Your task to perform on an android device: toggle wifi Image 0: 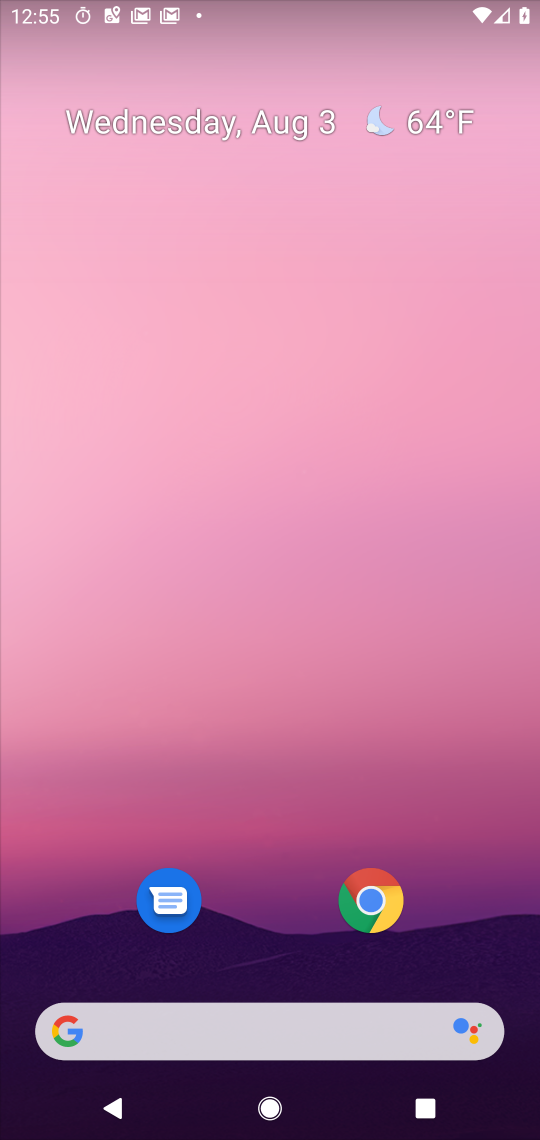
Step 0: drag from (254, 938) to (325, 90)
Your task to perform on an android device: toggle wifi Image 1: 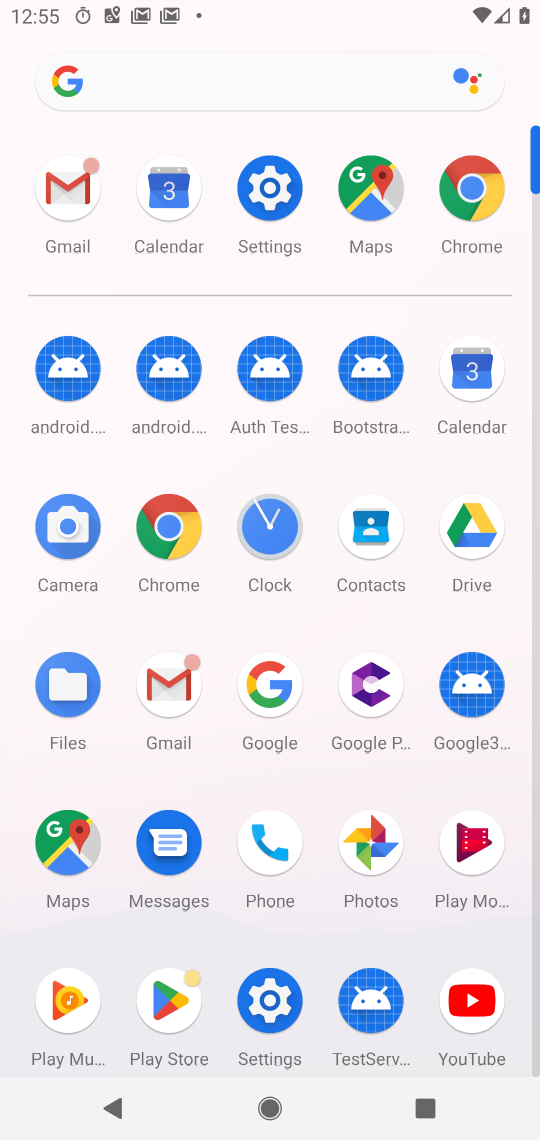
Step 1: click (282, 189)
Your task to perform on an android device: toggle wifi Image 2: 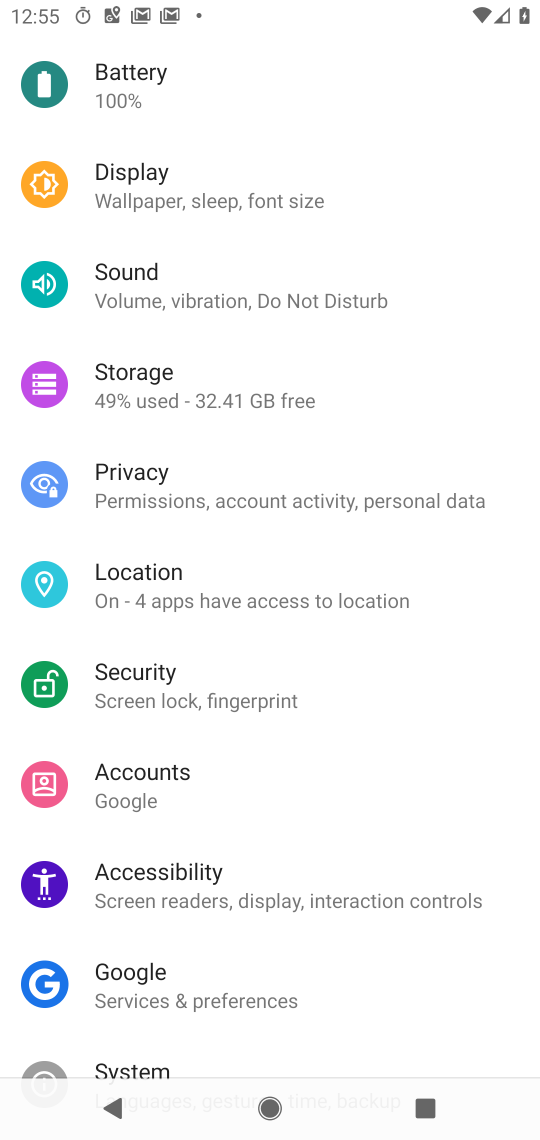
Step 2: drag from (313, 237) to (319, 913)
Your task to perform on an android device: toggle wifi Image 3: 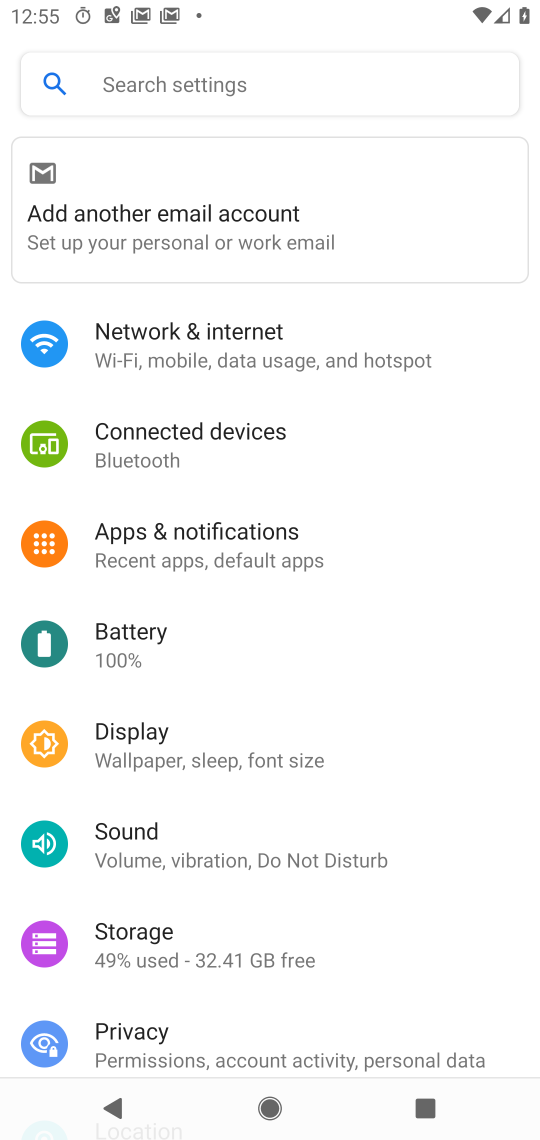
Step 3: click (225, 333)
Your task to perform on an android device: toggle wifi Image 4: 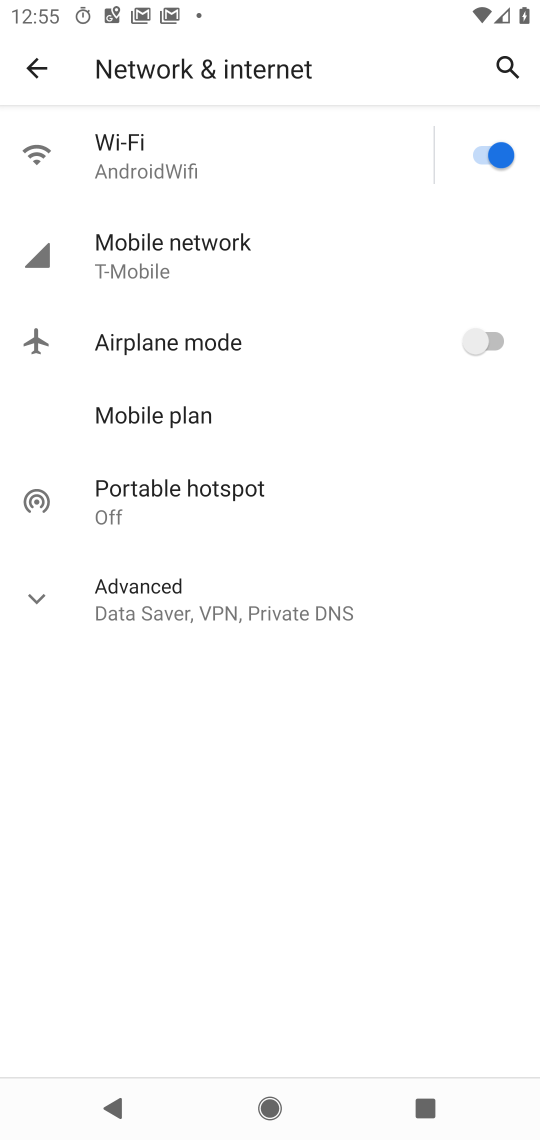
Step 4: click (298, 156)
Your task to perform on an android device: toggle wifi Image 5: 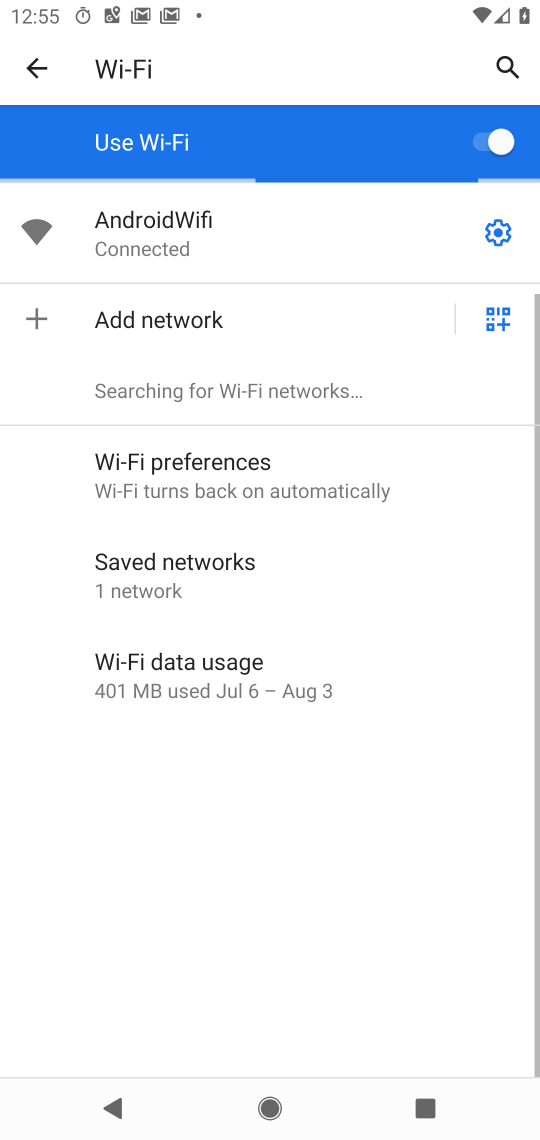
Step 5: click (472, 151)
Your task to perform on an android device: toggle wifi Image 6: 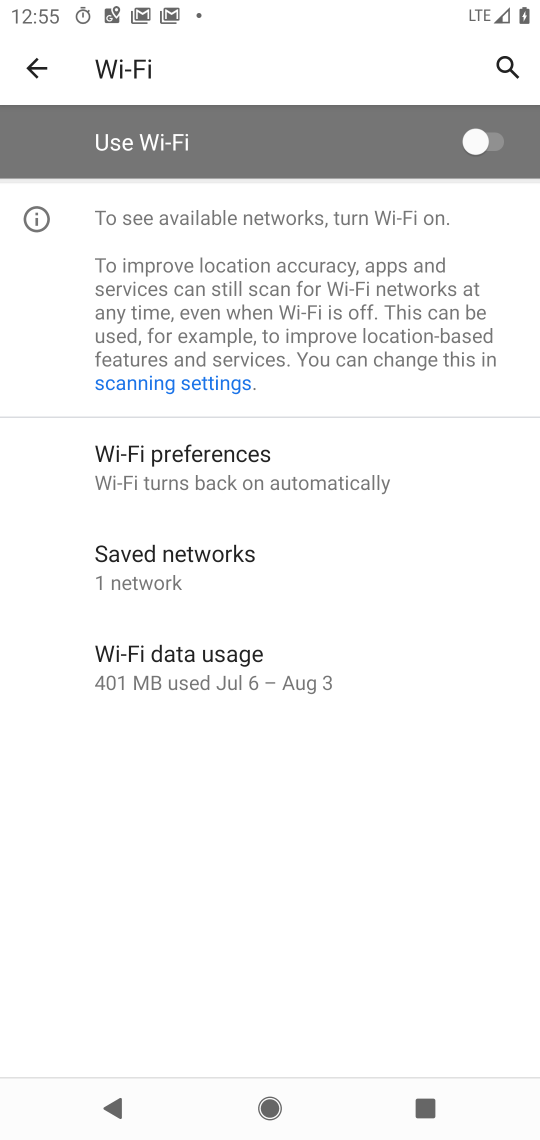
Step 6: task complete